Your task to perform on an android device: change the clock display to digital Image 0: 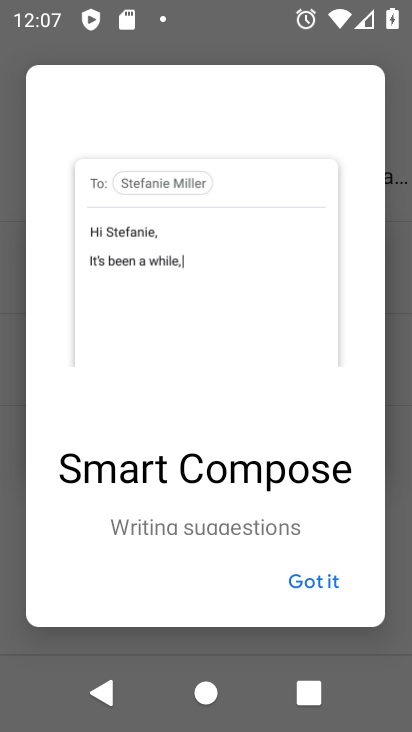
Step 0: press home button
Your task to perform on an android device: change the clock display to digital Image 1: 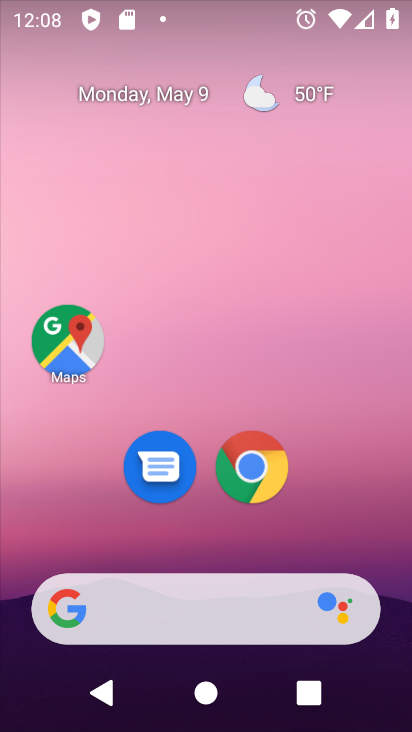
Step 1: drag from (205, 536) to (230, 25)
Your task to perform on an android device: change the clock display to digital Image 2: 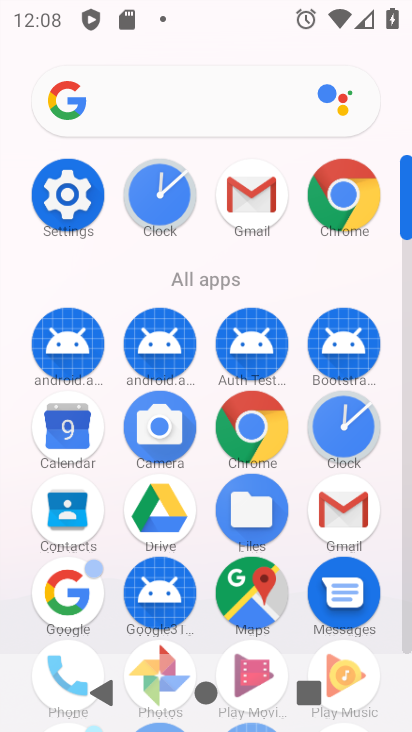
Step 2: click (342, 424)
Your task to perform on an android device: change the clock display to digital Image 3: 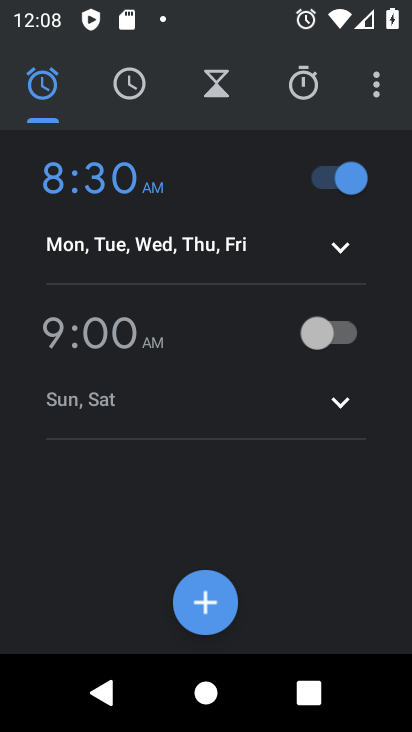
Step 3: click (101, 333)
Your task to perform on an android device: change the clock display to digital Image 4: 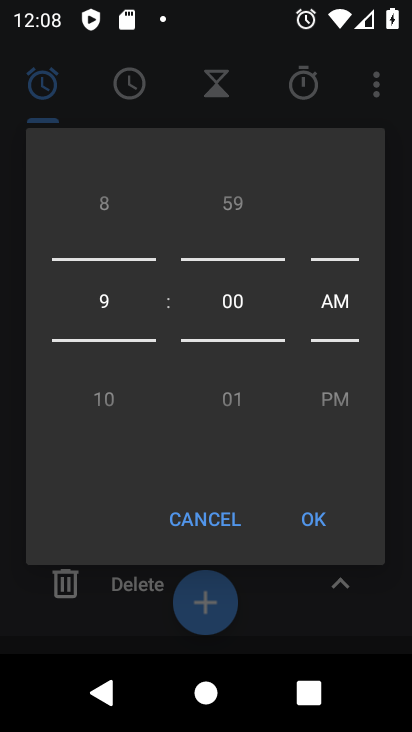
Step 4: click (310, 515)
Your task to perform on an android device: change the clock display to digital Image 5: 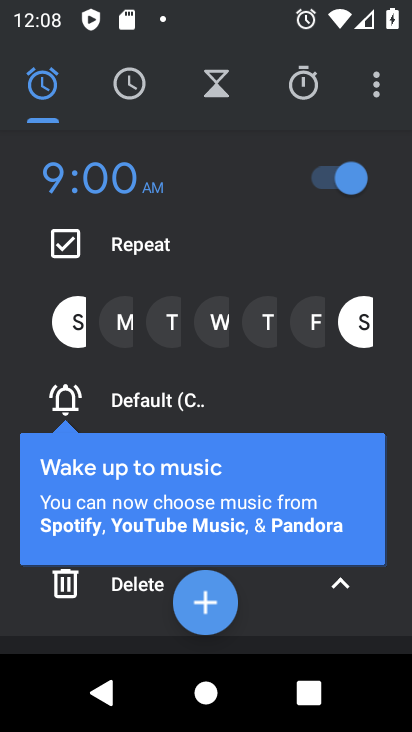
Step 5: task complete